Your task to perform on an android device: Go to Reddit.com Image 0: 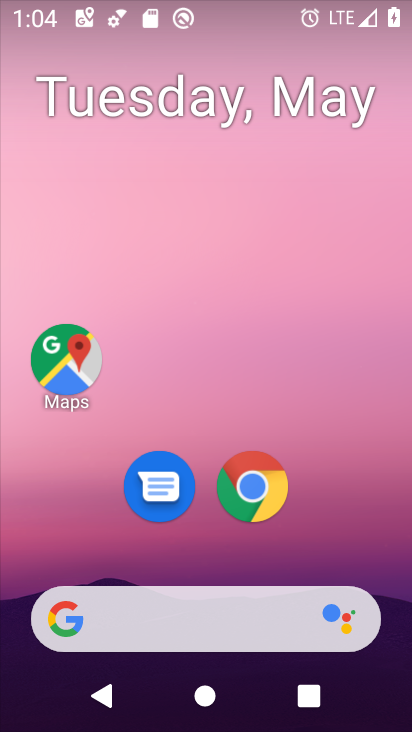
Step 0: click (256, 487)
Your task to perform on an android device: Go to Reddit.com Image 1: 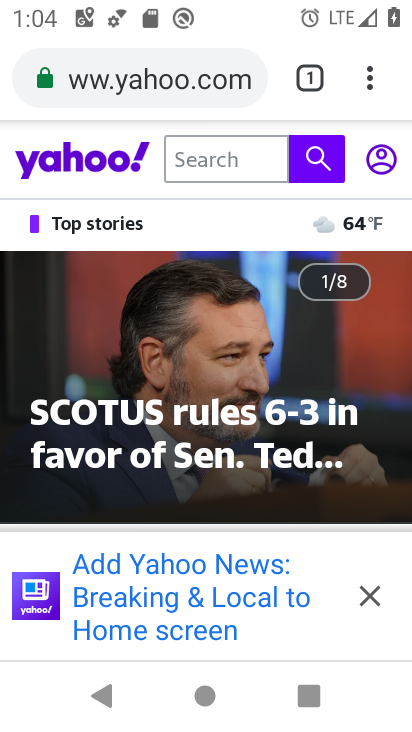
Step 1: click (169, 95)
Your task to perform on an android device: Go to Reddit.com Image 2: 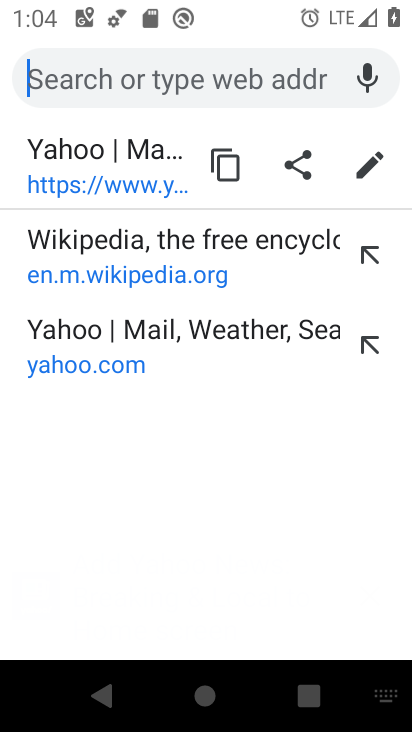
Step 2: type "Reddit.com"
Your task to perform on an android device: Go to Reddit.com Image 3: 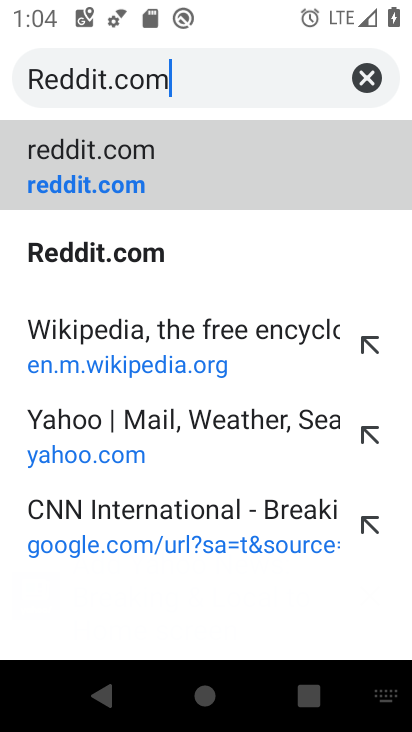
Step 3: type ""
Your task to perform on an android device: Go to Reddit.com Image 4: 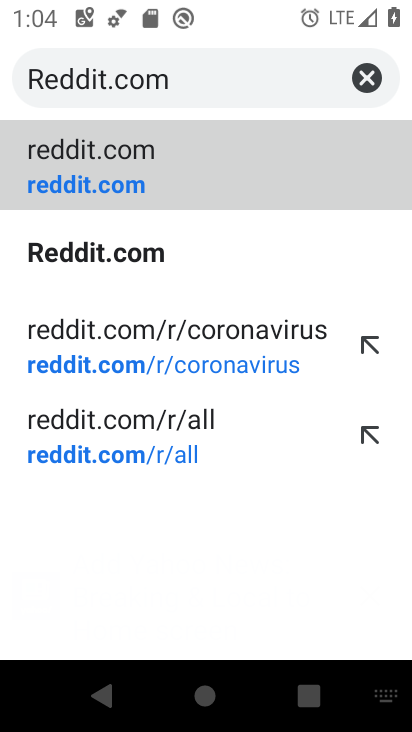
Step 4: click (118, 258)
Your task to perform on an android device: Go to Reddit.com Image 5: 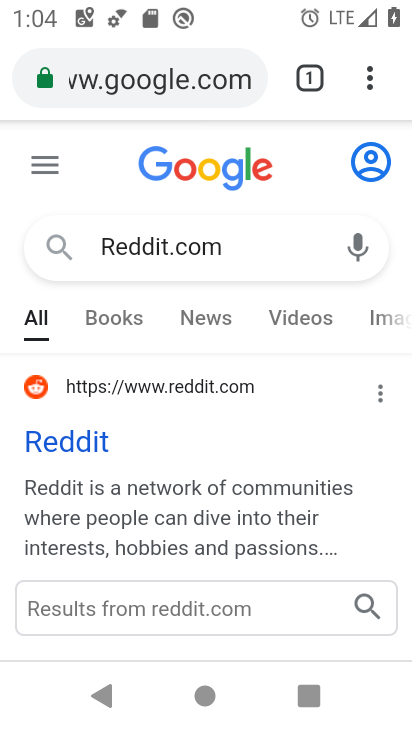
Step 5: click (107, 442)
Your task to perform on an android device: Go to Reddit.com Image 6: 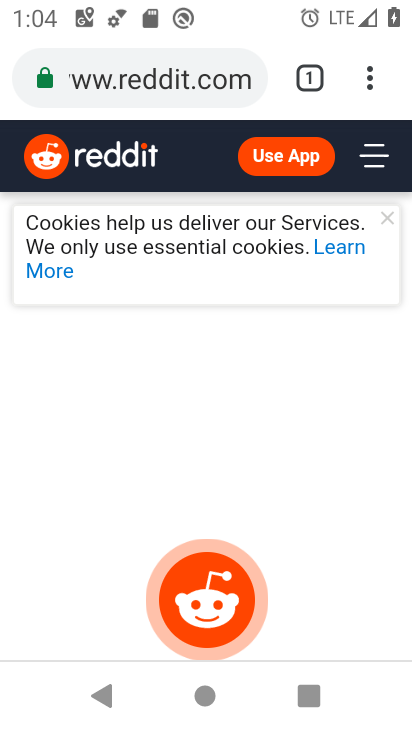
Step 6: task complete